Your task to perform on an android device: add a contact in the contacts app Image 0: 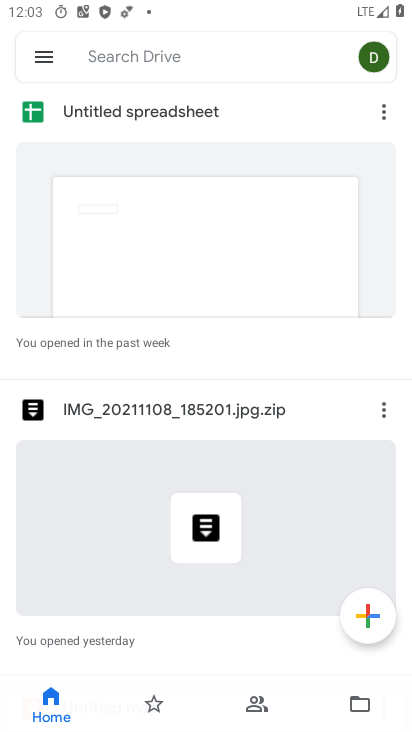
Step 0: press home button
Your task to perform on an android device: add a contact in the contacts app Image 1: 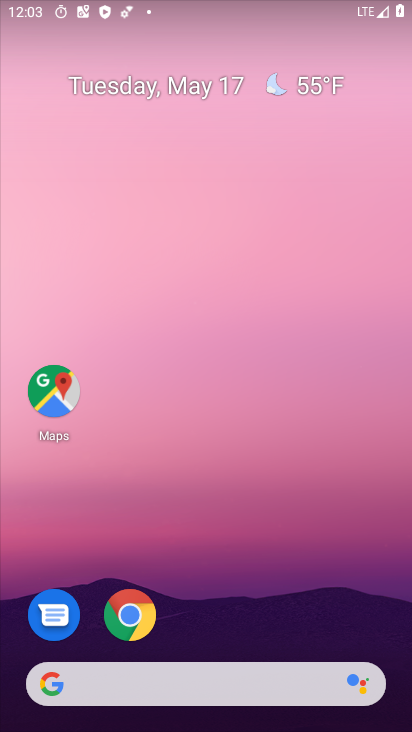
Step 1: drag from (267, 610) to (114, 54)
Your task to perform on an android device: add a contact in the contacts app Image 2: 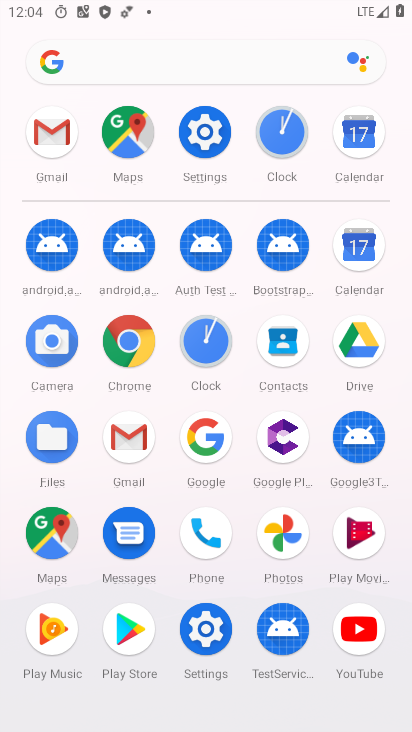
Step 2: click (295, 344)
Your task to perform on an android device: add a contact in the contacts app Image 3: 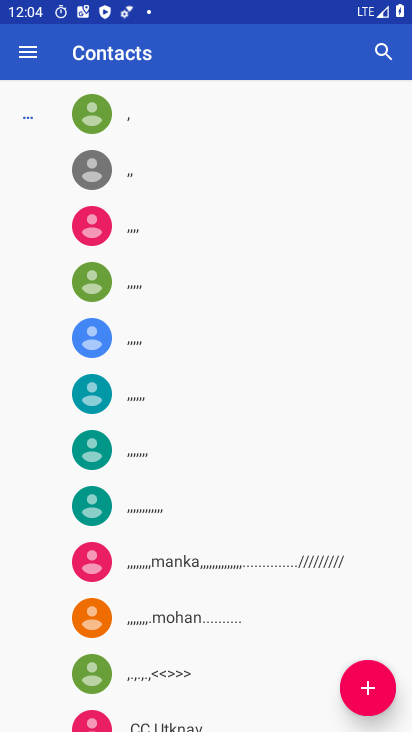
Step 3: click (382, 691)
Your task to perform on an android device: add a contact in the contacts app Image 4: 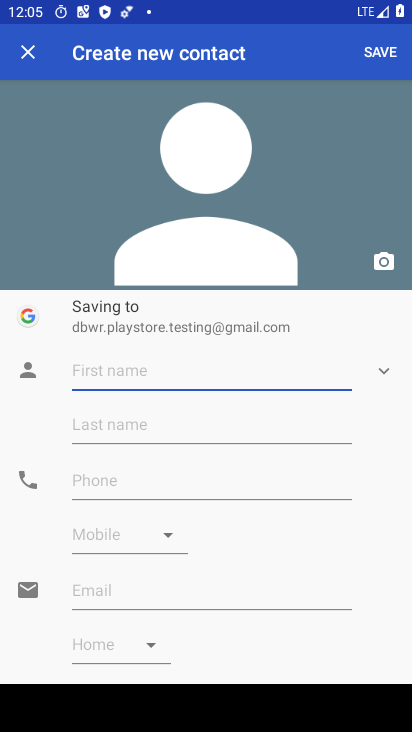
Step 4: type "bad"
Your task to perform on an android device: add a contact in the contacts app Image 5: 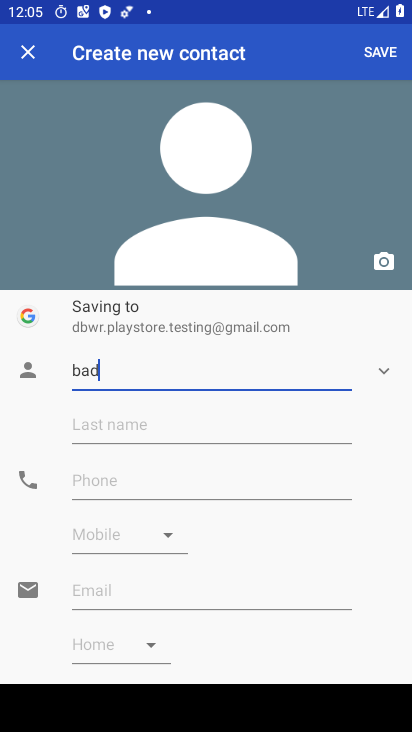
Step 5: click (190, 417)
Your task to perform on an android device: add a contact in the contacts app Image 6: 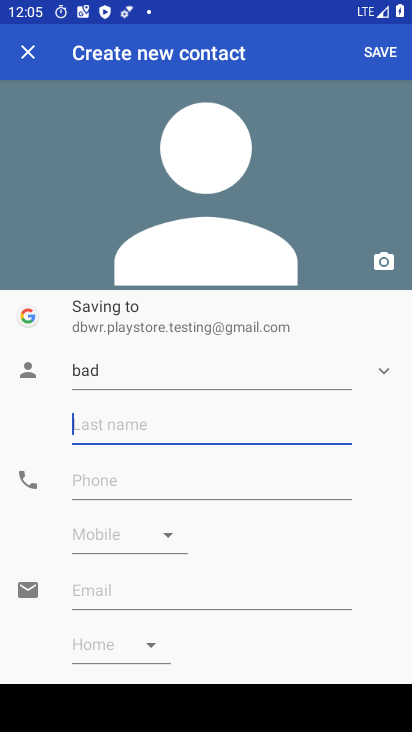
Step 6: click (180, 472)
Your task to perform on an android device: add a contact in the contacts app Image 7: 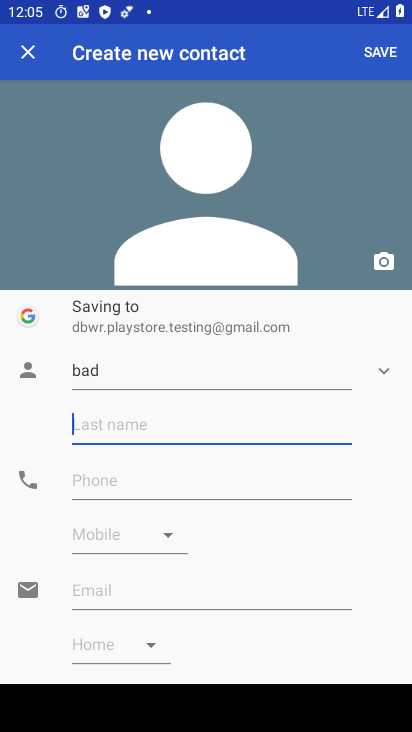
Step 7: click (180, 472)
Your task to perform on an android device: add a contact in the contacts app Image 8: 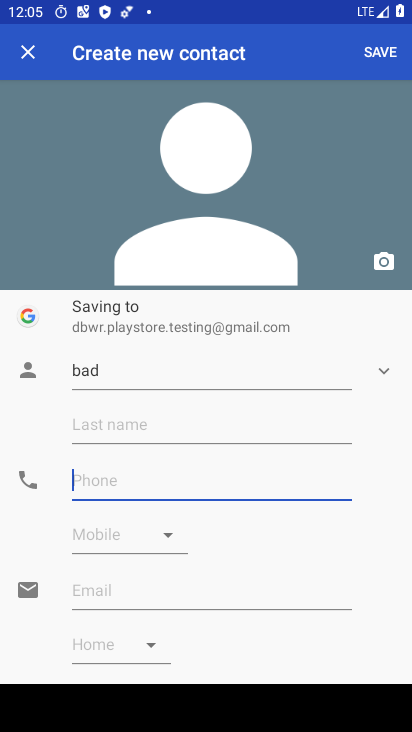
Step 8: click (180, 472)
Your task to perform on an android device: add a contact in the contacts app Image 9: 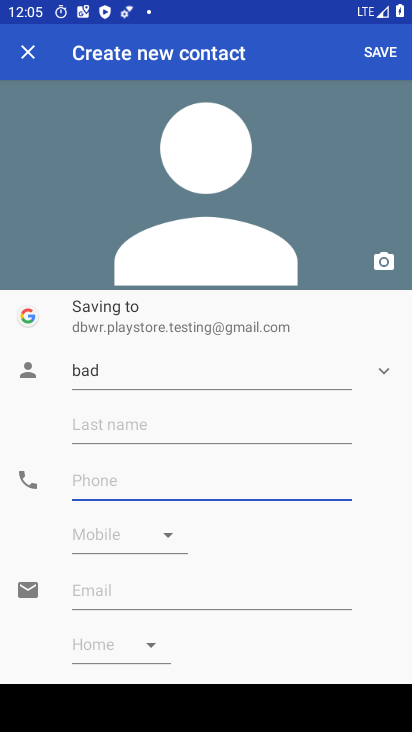
Step 9: click (180, 472)
Your task to perform on an android device: add a contact in the contacts app Image 10: 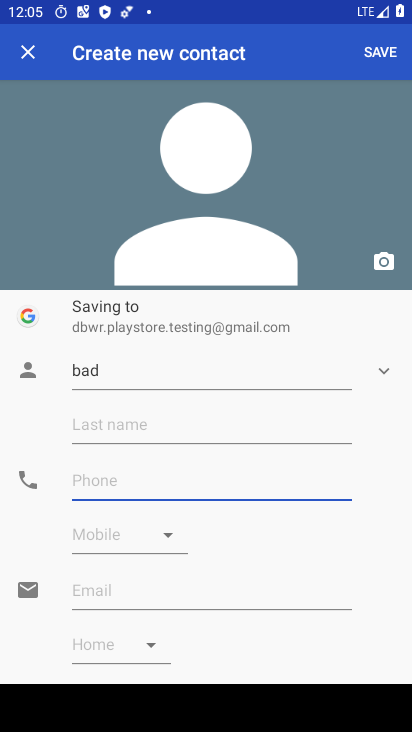
Step 10: click (180, 472)
Your task to perform on an android device: add a contact in the contacts app Image 11: 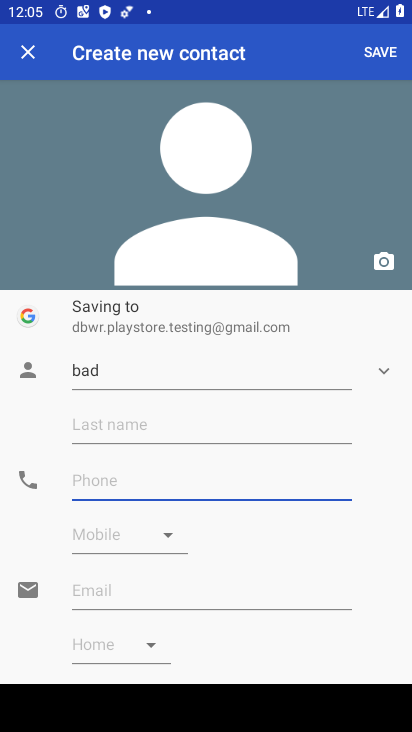
Step 11: type "212"
Your task to perform on an android device: add a contact in the contacts app Image 12: 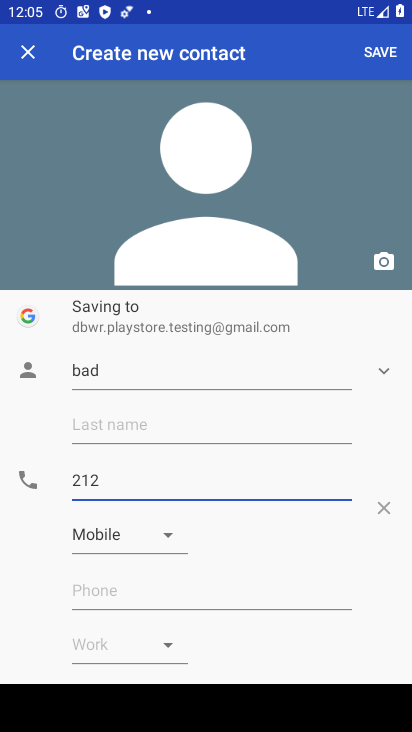
Step 12: click (388, 59)
Your task to perform on an android device: add a contact in the contacts app Image 13: 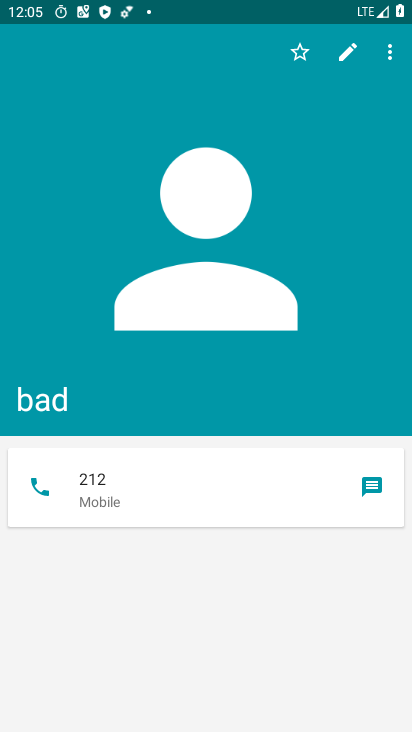
Step 13: task complete